Your task to perform on an android device: turn on improve location accuracy Image 0: 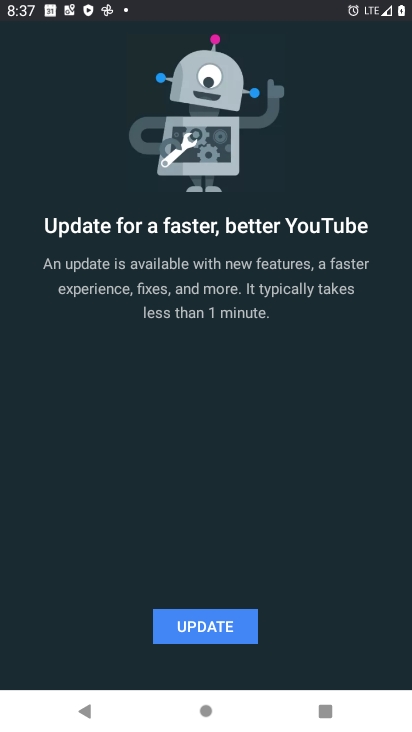
Step 0: press back button
Your task to perform on an android device: turn on improve location accuracy Image 1: 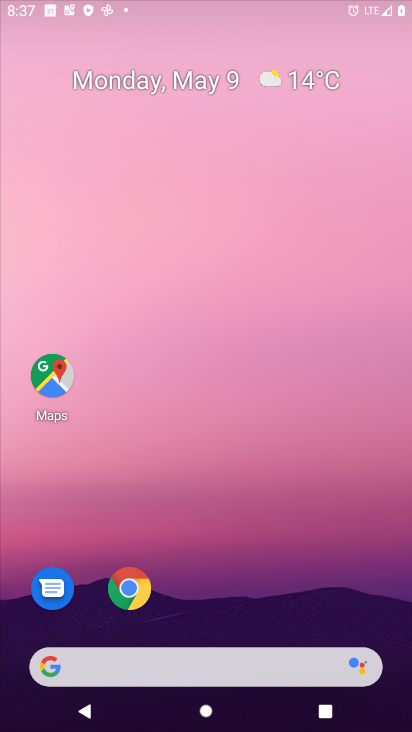
Step 1: drag from (335, 610) to (254, 189)
Your task to perform on an android device: turn on improve location accuracy Image 2: 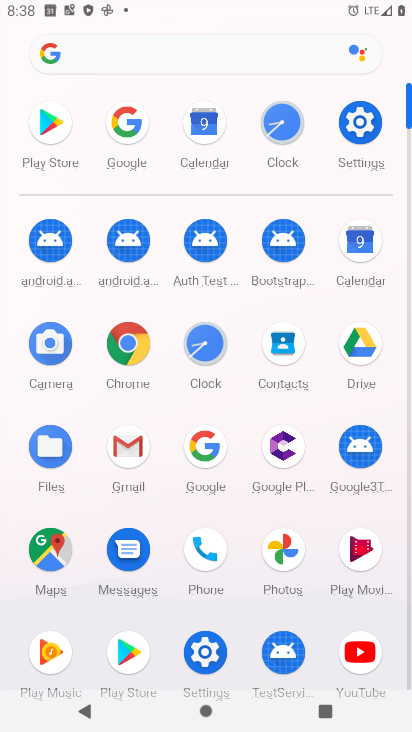
Step 2: click (203, 672)
Your task to perform on an android device: turn on improve location accuracy Image 3: 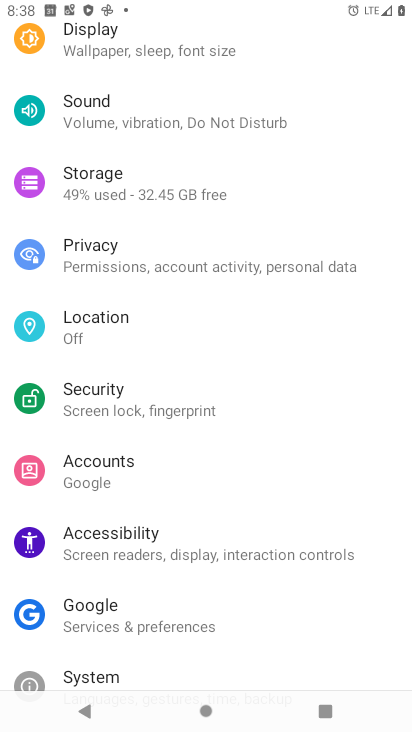
Step 3: click (118, 316)
Your task to perform on an android device: turn on improve location accuracy Image 4: 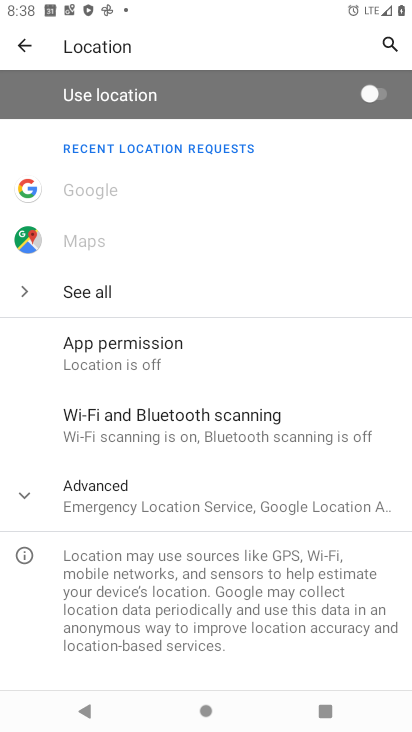
Step 4: click (153, 507)
Your task to perform on an android device: turn on improve location accuracy Image 5: 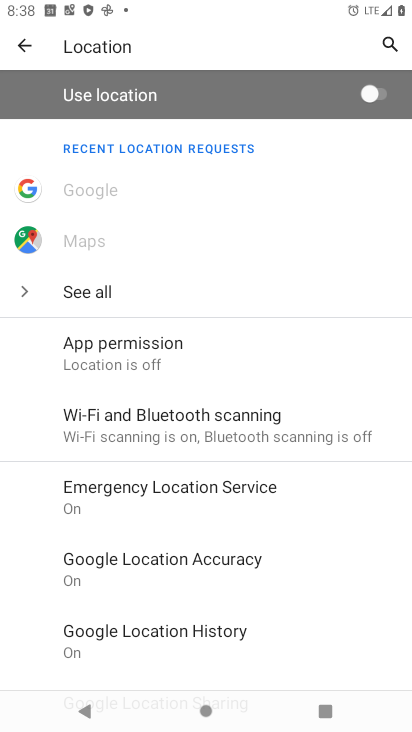
Step 5: drag from (182, 635) to (168, 448)
Your task to perform on an android device: turn on improve location accuracy Image 6: 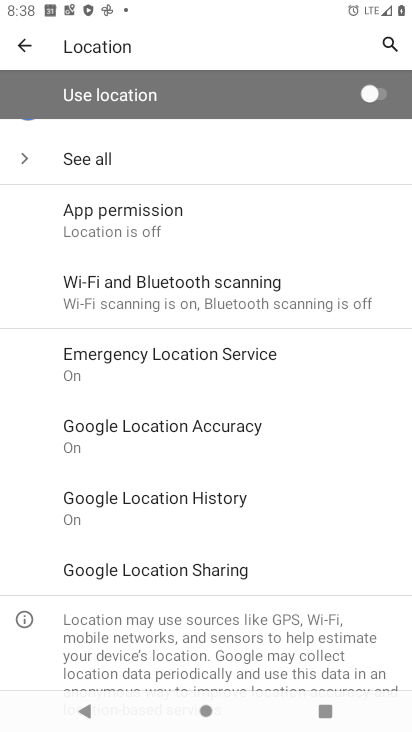
Step 6: click (129, 425)
Your task to perform on an android device: turn on improve location accuracy Image 7: 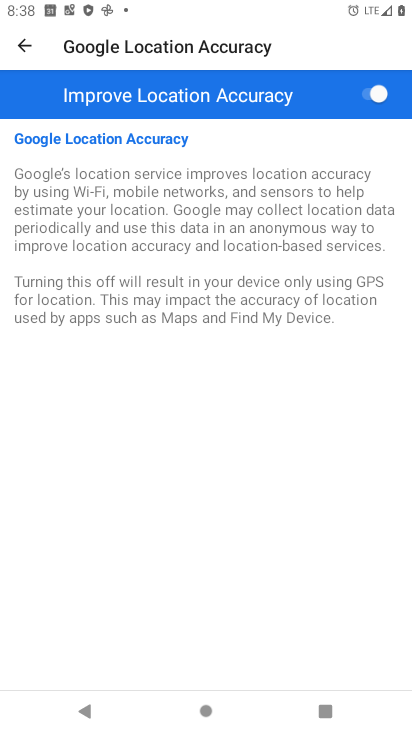
Step 7: task complete